Your task to perform on an android device: Open the Play Movies app and select the watchlist tab. Image 0: 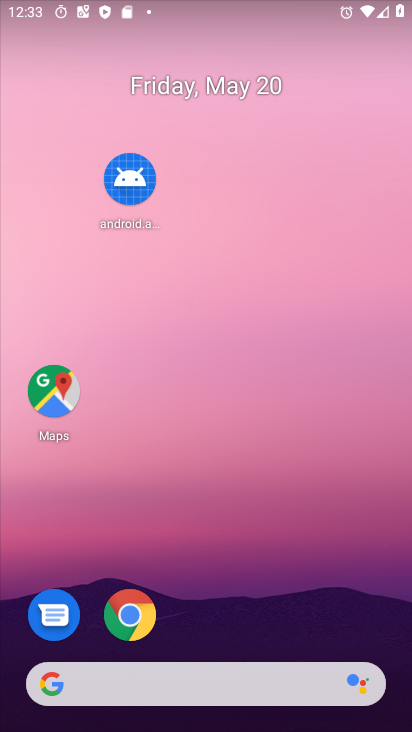
Step 0: drag from (364, 572) to (346, 88)
Your task to perform on an android device: Open the Play Movies app and select the watchlist tab. Image 1: 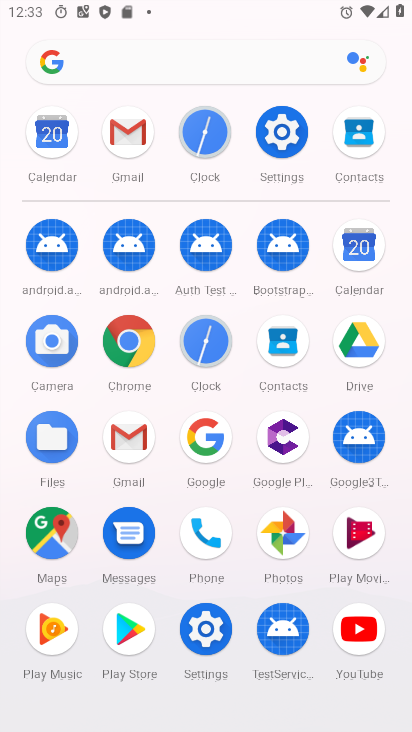
Step 1: click (369, 537)
Your task to perform on an android device: Open the Play Movies app and select the watchlist tab. Image 2: 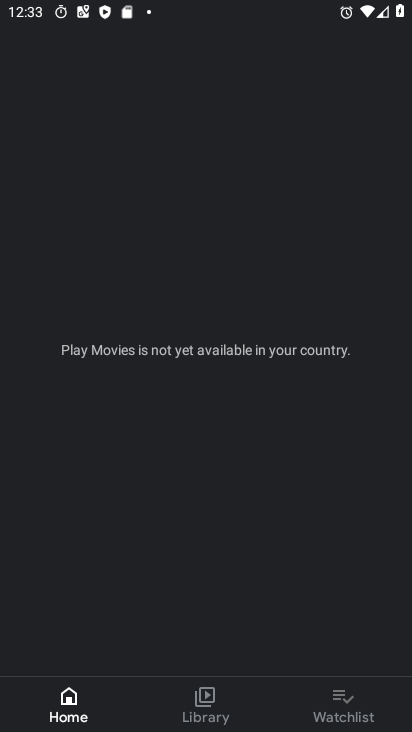
Step 2: click (343, 694)
Your task to perform on an android device: Open the Play Movies app and select the watchlist tab. Image 3: 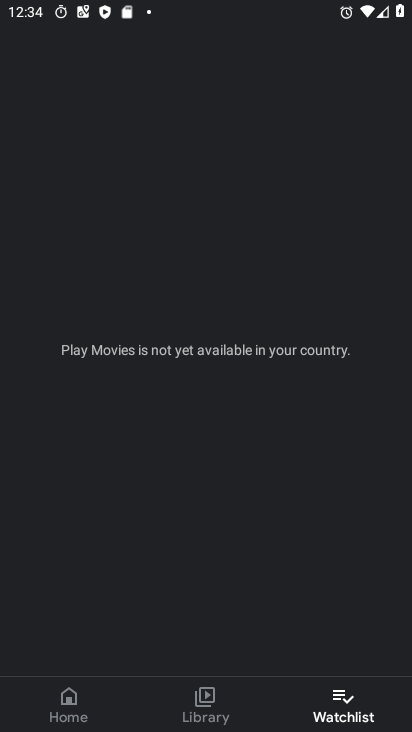
Step 3: task complete